Your task to perform on an android device: find which apps use the phone's location Image 0: 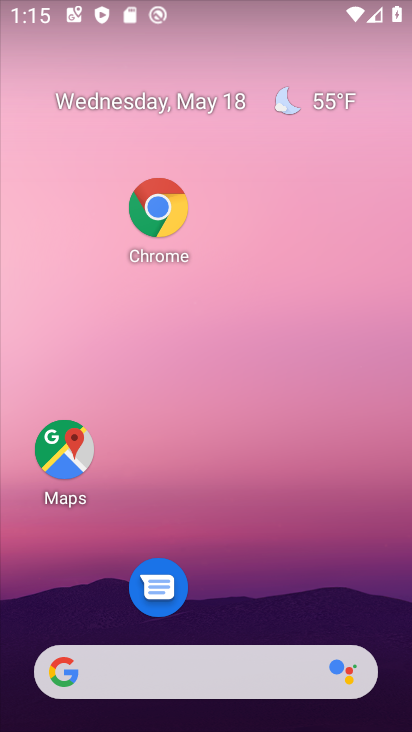
Step 0: drag from (278, 316) to (300, 234)
Your task to perform on an android device: find which apps use the phone's location Image 1: 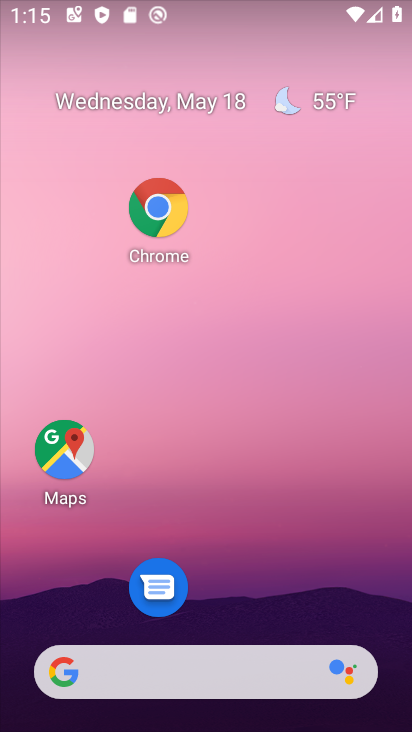
Step 1: click (235, 172)
Your task to perform on an android device: find which apps use the phone's location Image 2: 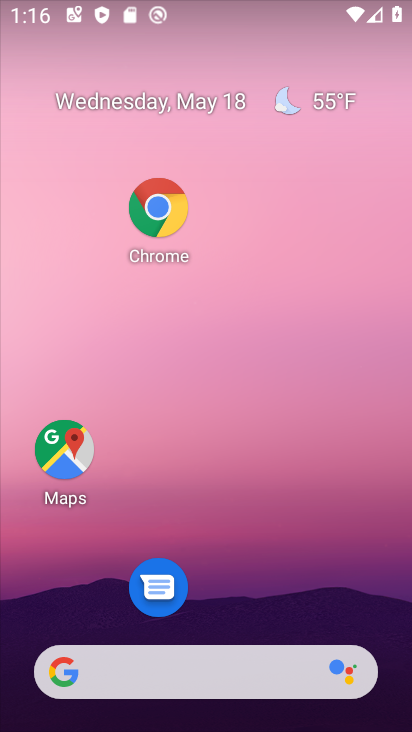
Step 2: drag from (246, 594) to (231, 148)
Your task to perform on an android device: find which apps use the phone's location Image 3: 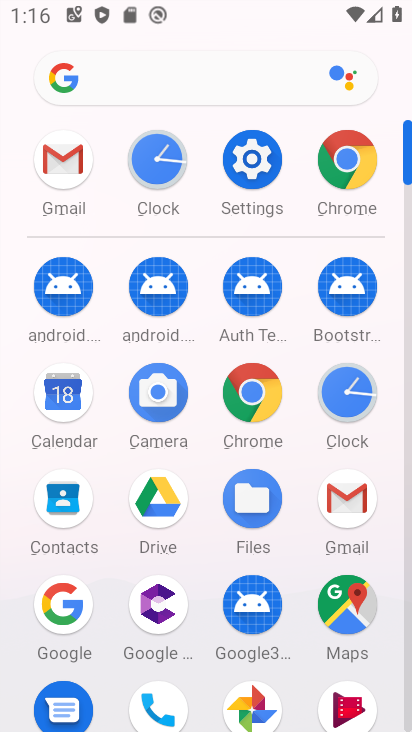
Step 3: click (244, 178)
Your task to perform on an android device: find which apps use the phone's location Image 4: 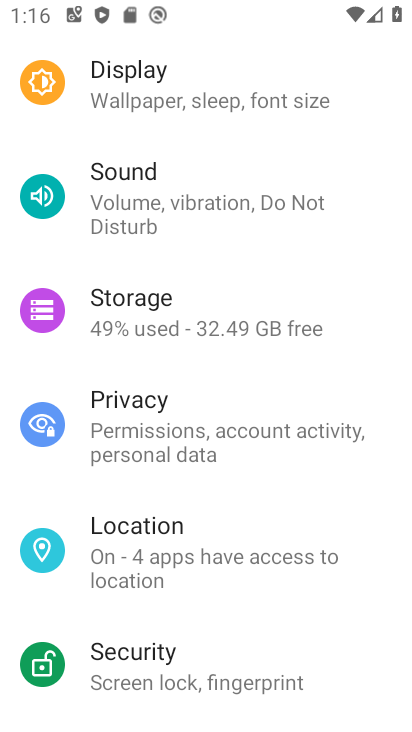
Step 4: click (136, 561)
Your task to perform on an android device: find which apps use the phone's location Image 5: 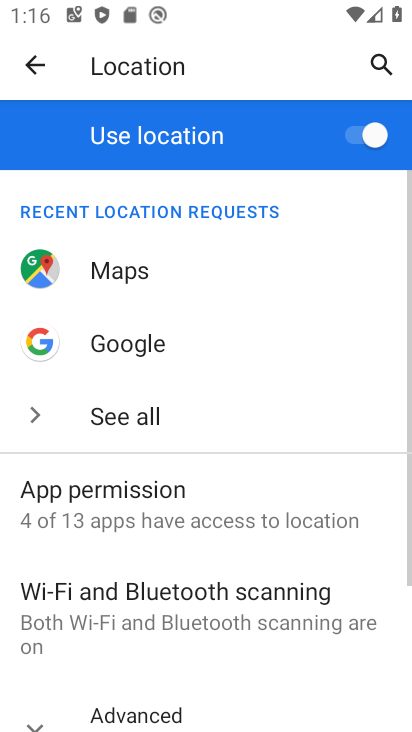
Step 5: click (109, 517)
Your task to perform on an android device: find which apps use the phone's location Image 6: 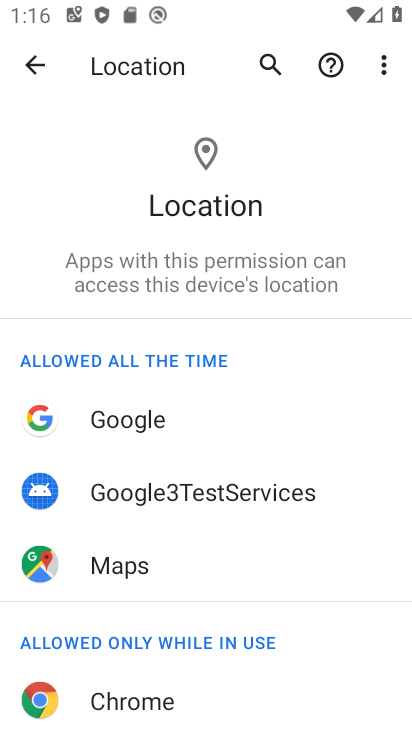
Step 6: task complete